Your task to perform on an android device: Open accessibility settings Image 0: 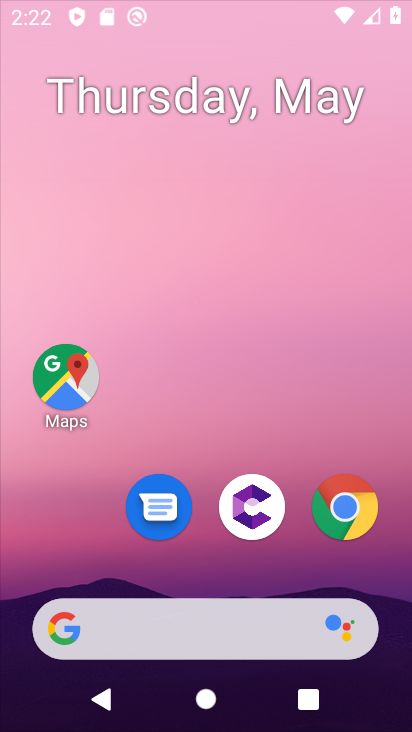
Step 0: press home button
Your task to perform on an android device: Open accessibility settings Image 1: 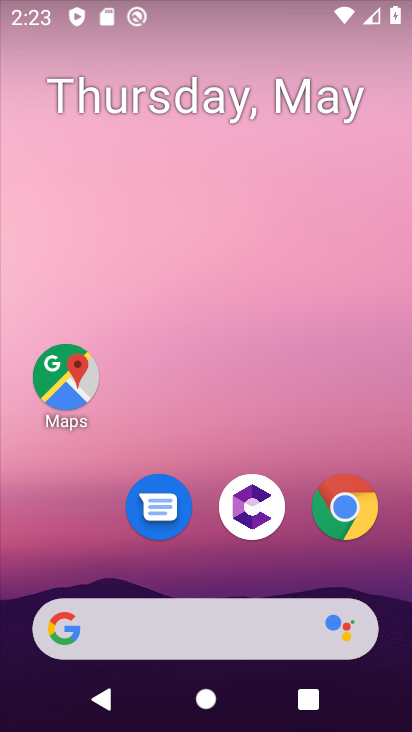
Step 1: drag from (213, 581) to (13, 4)
Your task to perform on an android device: Open accessibility settings Image 2: 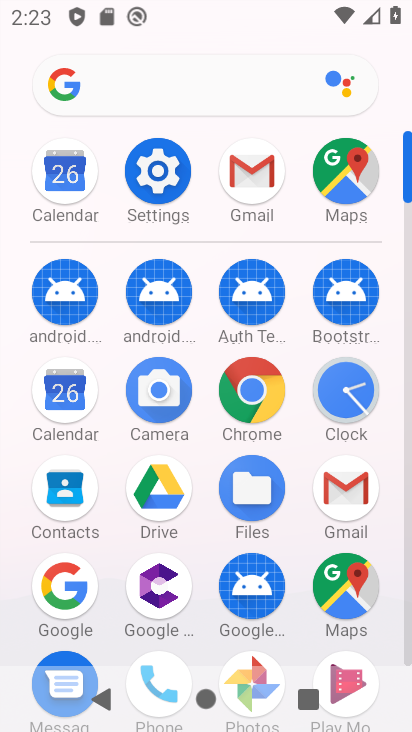
Step 2: click (164, 189)
Your task to perform on an android device: Open accessibility settings Image 3: 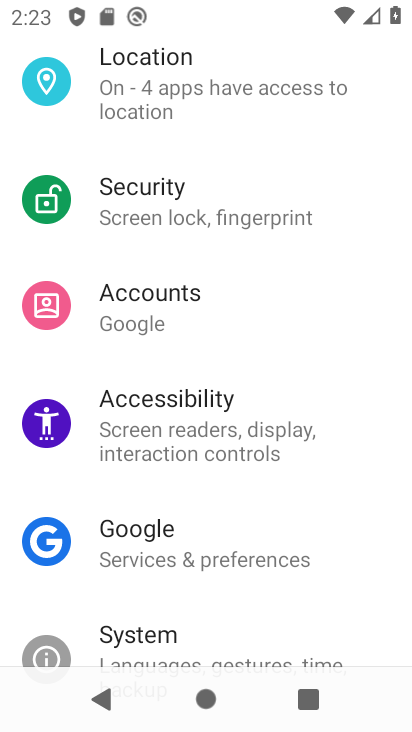
Step 3: click (145, 408)
Your task to perform on an android device: Open accessibility settings Image 4: 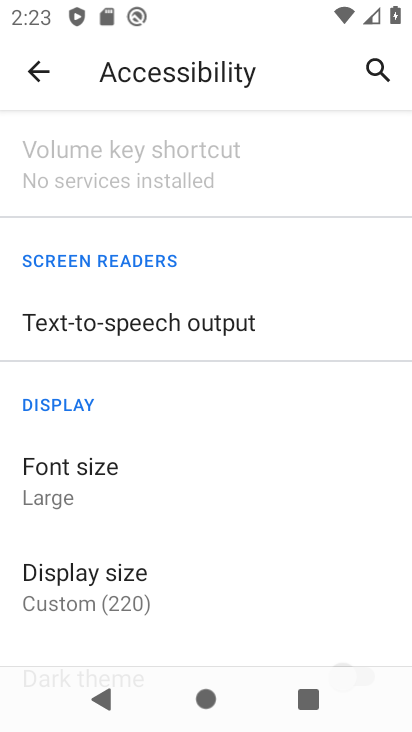
Step 4: task complete